Your task to perform on an android device: turn off priority inbox in the gmail app Image 0: 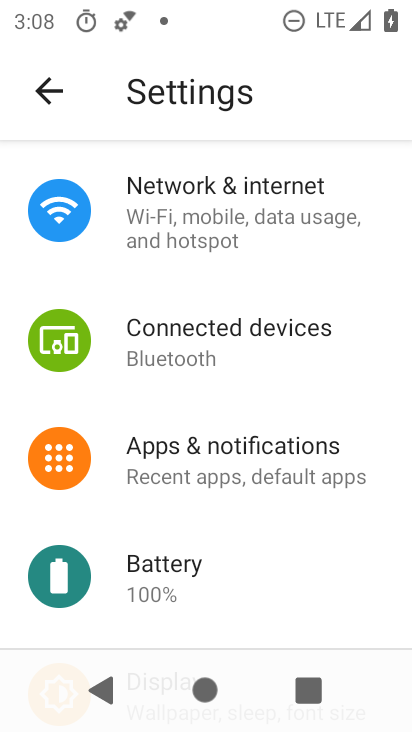
Step 0: press home button
Your task to perform on an android device: turn off priority inbox in the gmail app Image 1: 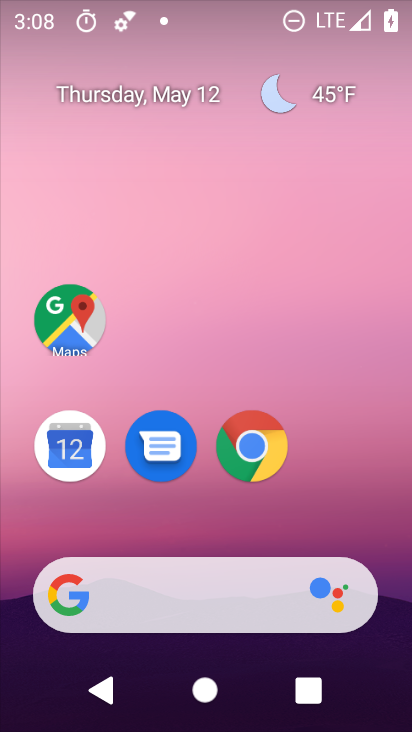
Step 1: drag from (239, 525) to (260, 135)
Your task to perform on an android device: turn off priority inbox in the gmail app Image 2: 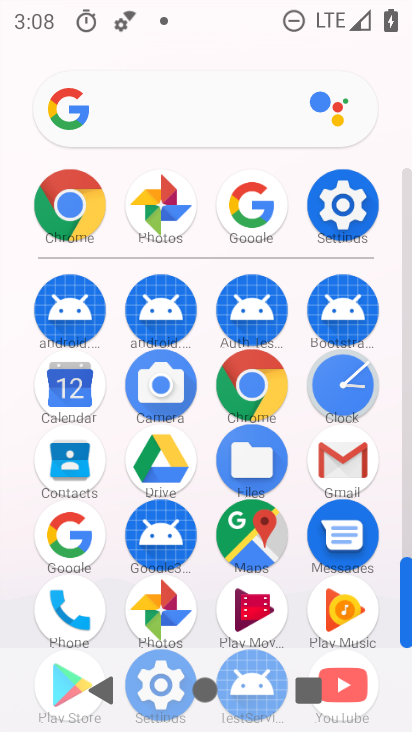
Step 2: click (339, 454)
Your task to perform on an android device: turn off priority inbox in the gmail app Image 3: 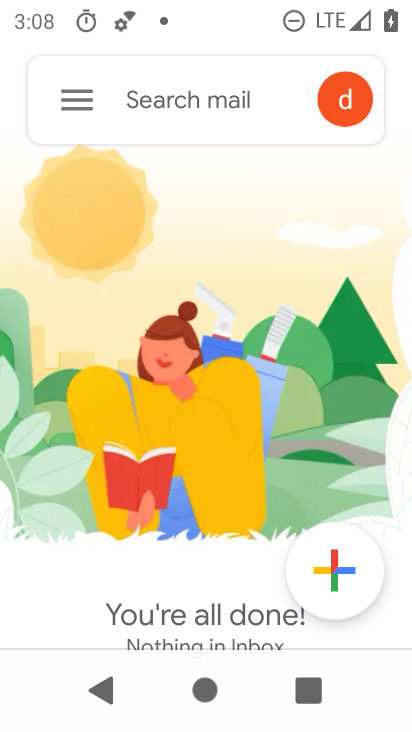
Step 3: click (77, 96)
Your task to perform on an android device: turn off priority inbox in the gmail app Image 4: 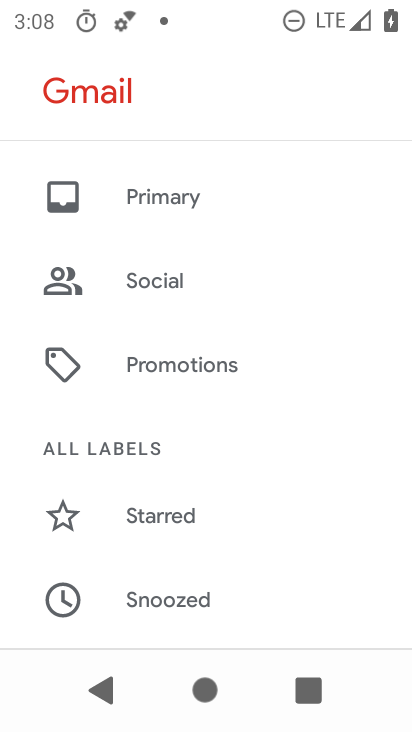
Step 4: drag from (219, 581) to (296, 207)
Your task to perform on an android device: turn off priority inbox in the gmail app Image 5: 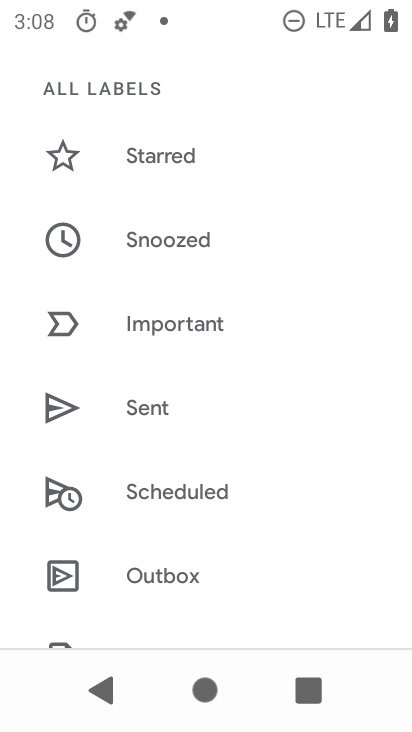
Step 5: drag from (255, 510) to (273, 227)
Your task to perform on an android device: turn off priority inbox in the gmail app Image 6: 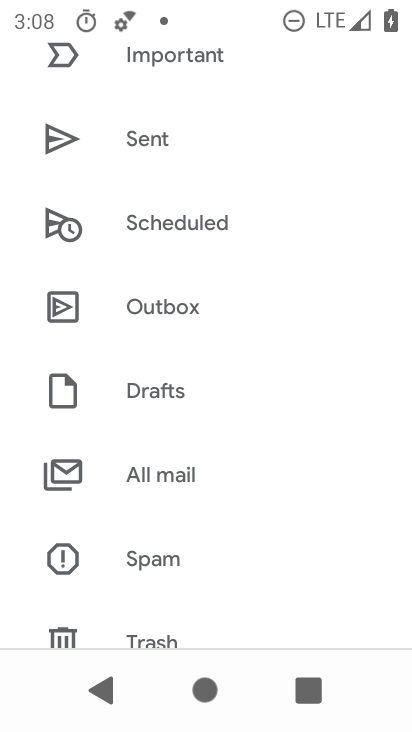
Step 6: drag from (272, 487) to (276, 250)
Your task to perform on an android device: turn off priority inbox in the gmail app Image 7: 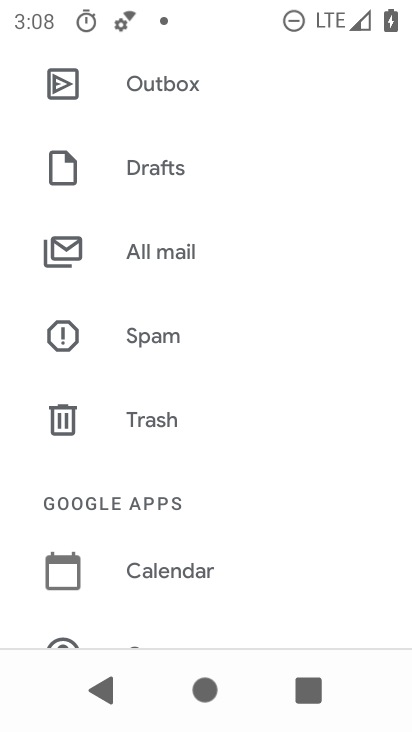
Step 7: drag from (236, 516) to (263, 262)
Your task to perform on an android device: turn off priority inbox in the gmail app Image 8: 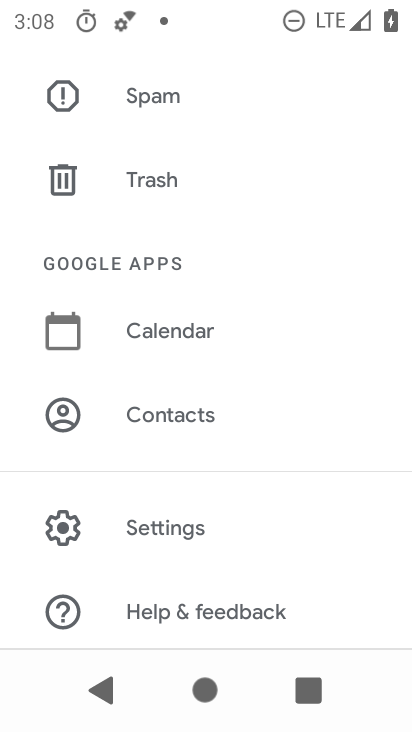
Step 8: drag from (260, 229) to (263, 294)
Your task to perform on an android device: turn off priority inbox in the gmail app Image 9: 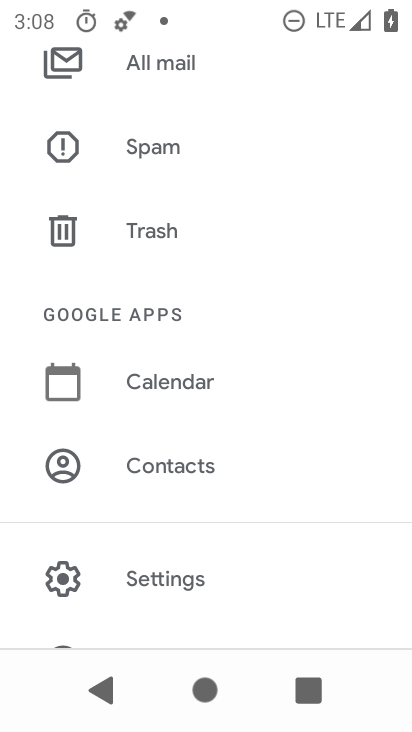
Step 9: click (164, 570)
Your task to perform on an android device: turn off priority inbox in the gmail app Image 10: 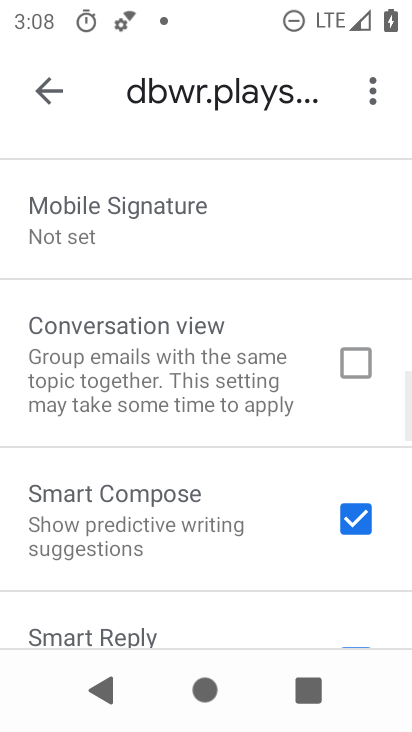
Step 10: drag from (247, 253) to (247, 476)
Your task to perform on an android device: turn off priority inbox in the gmail app Image 11: 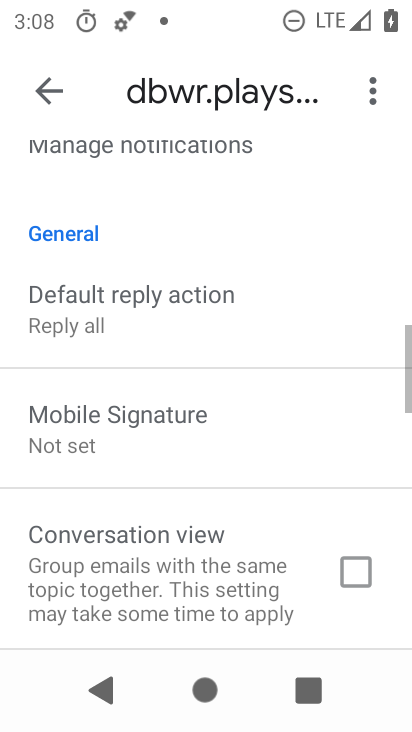
Step 11: drag from (251, 243) to (251, 425)
Your task to perform on an android device: turn off priority inbox in the gmail app Image 12: 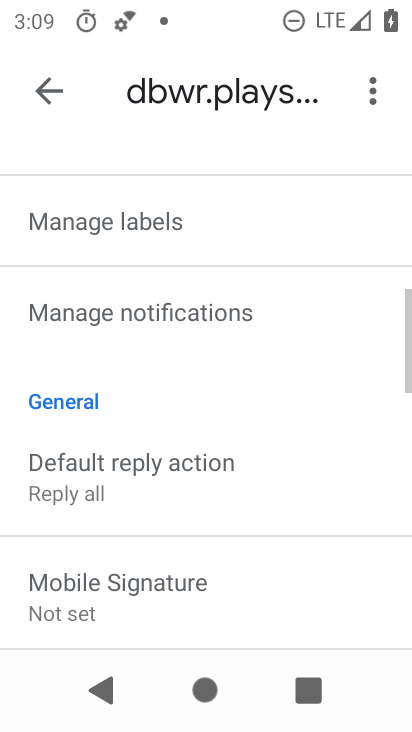
Step 12: drag from (261, 210) to (258, 448)
Your task to perform on an android device: turn off priority inbox in the gmail app Image 13: 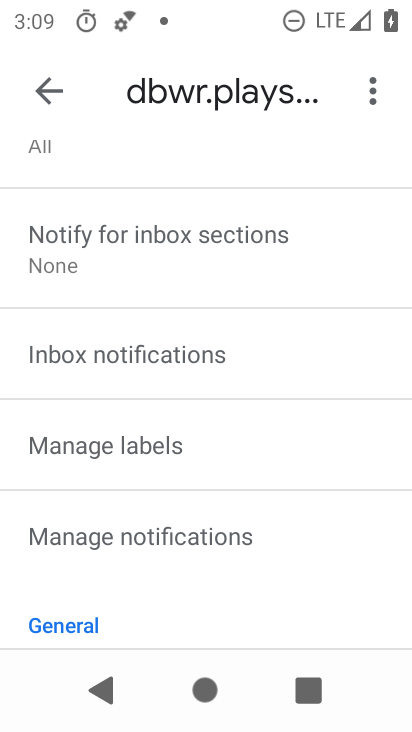
Step 13: drag from (272, 253) to (239, 539)
Your task to perform on an android device: turn off priority inbox in the gmail app Image 14: 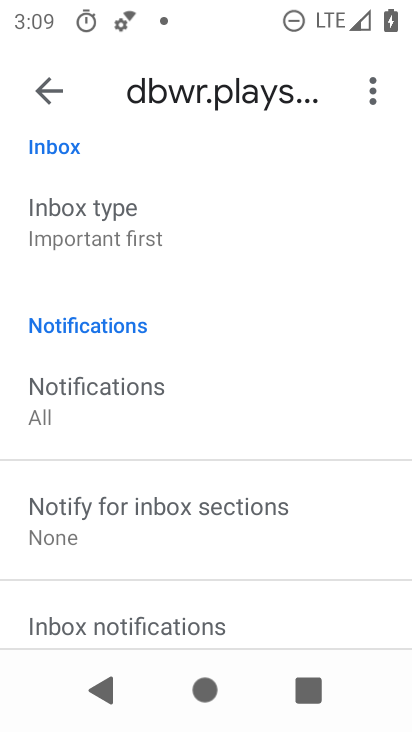
Step 14: drag from (251, 259) to (251, 522)
Your task to perform on an android device: turn off priority inbox in the gmail app Image 15: 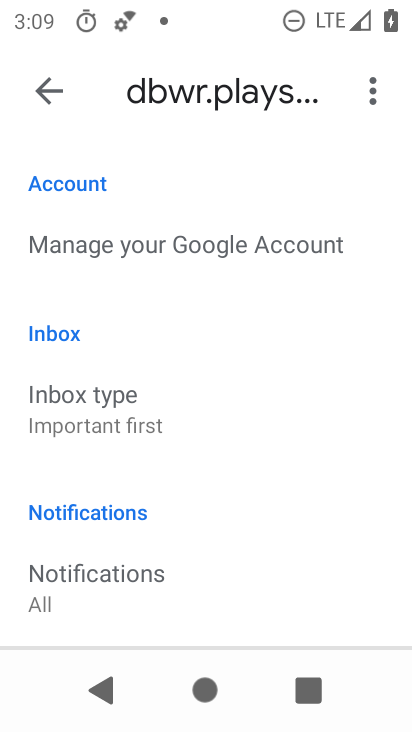
Step 15: click (178, 413)
Your task to perform on an android device: turn off priority inbox in the gmail app Image 16: 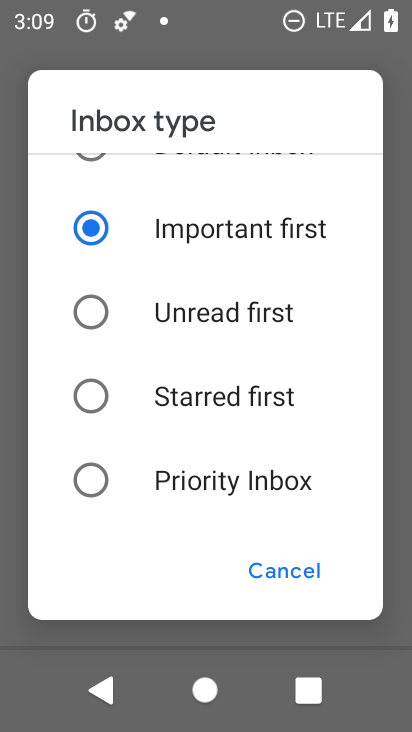
Step 16: task complete